Your task to perform on an android device: change text size in settings app Image 0: 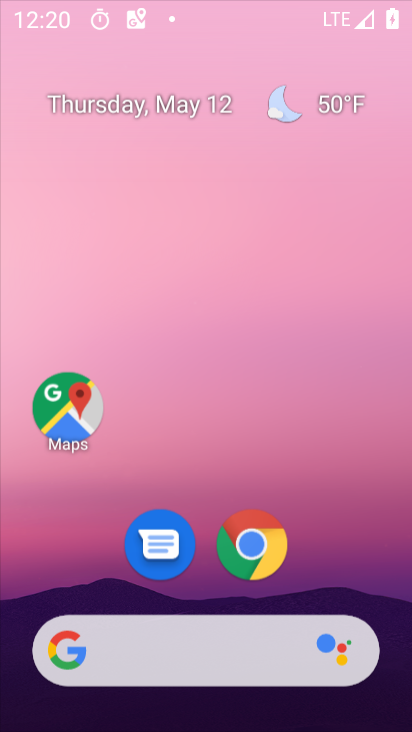
Step 0: click (270, 385)
Your task to perform on an android device: change text size in settings app Image 1: 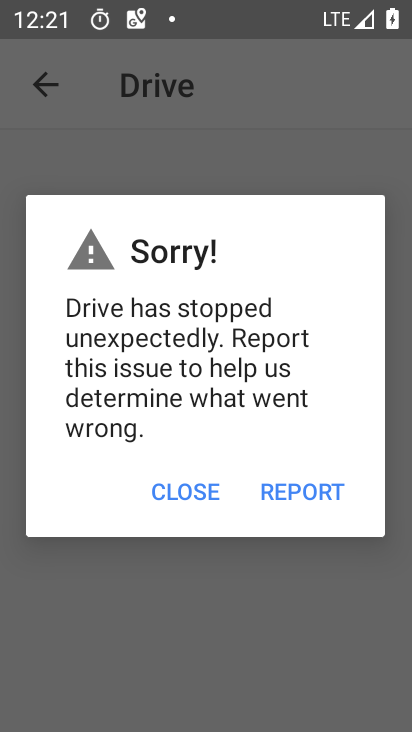
Step 1: click (189, 498)
Your task to perform on an android device: change text size in settings app Image 2: 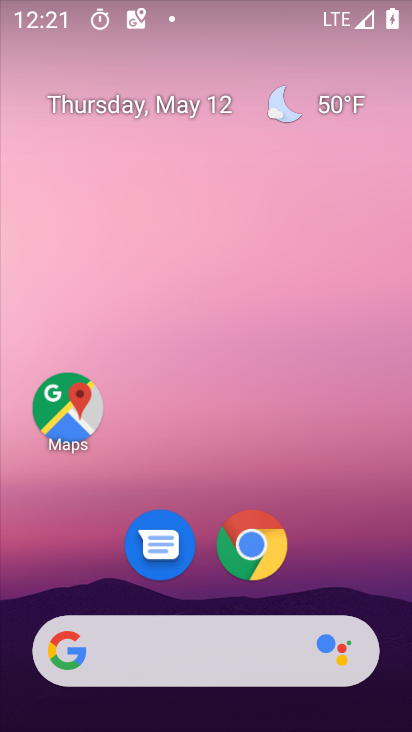
Step 2: drag from (222, 643) to (193, 3)
Your task to perform on an android device: change text size in settings app Image 3: 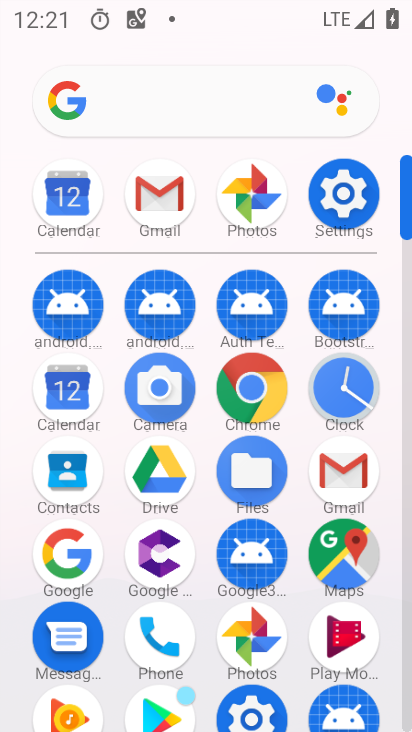
Step 3: click (344, 208)
Your task to perform on an android device: change text size in settings app Image 4: 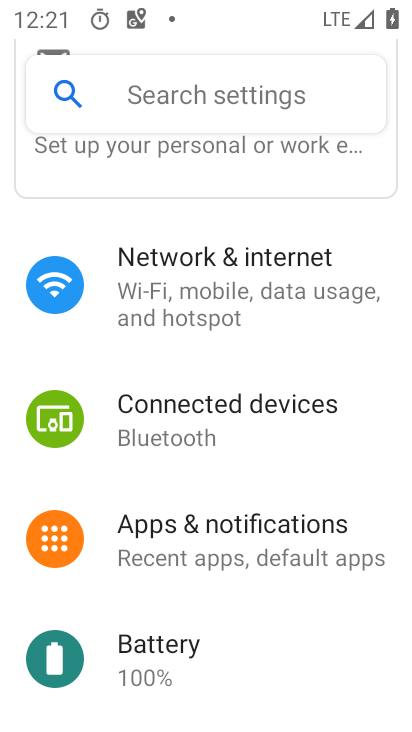
Step 4: drag from (187, 630) to (160, 157)
Your task to perform on an android device: change text size in settings app Image 5: 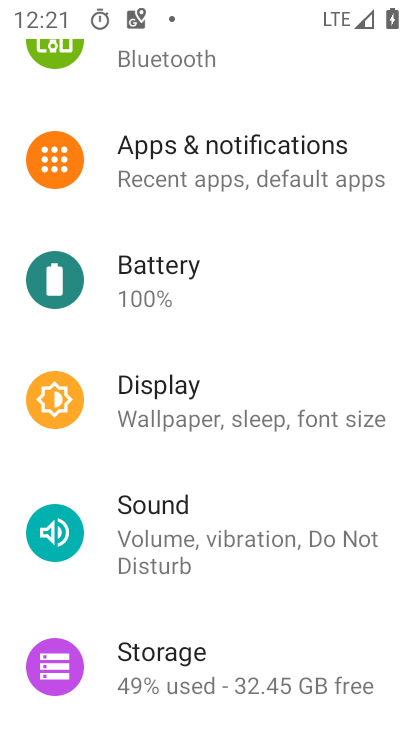
Step 5: click (190, 433)
Your task to perform on an android device: change text size in settings app Image 6: 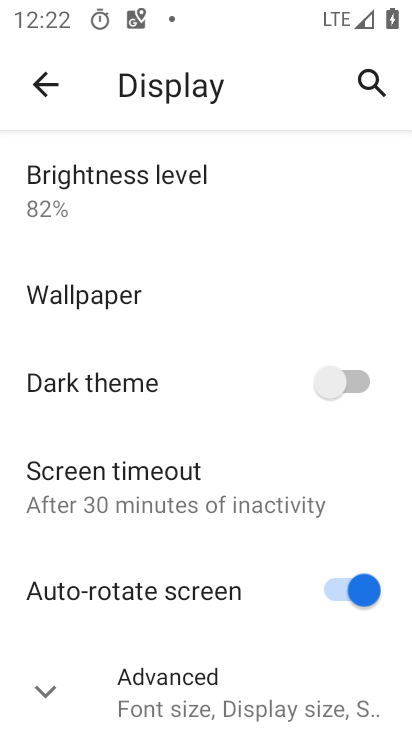
Step 6: click (175, 668)
Your task to perform on an android device: change text size in settings app Image 7: 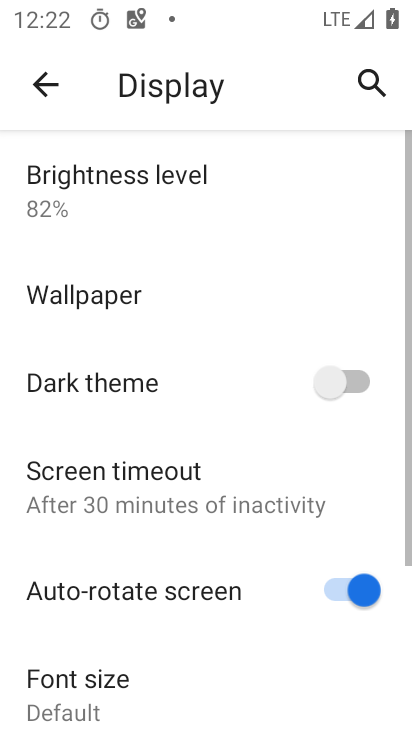
Step 7: drag from (182, 611) to (72, 18)
Your task to perform on an android device: change text size in settings app Image 8: 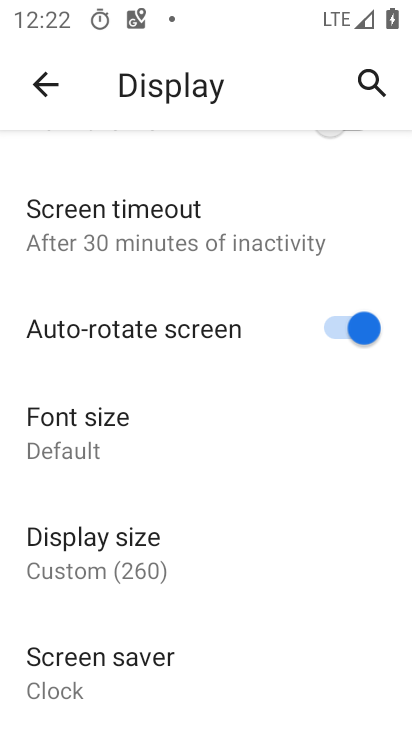
Step 8: click (101, 444)
Your task to perform on an android device: change text size in settings app Image 9: 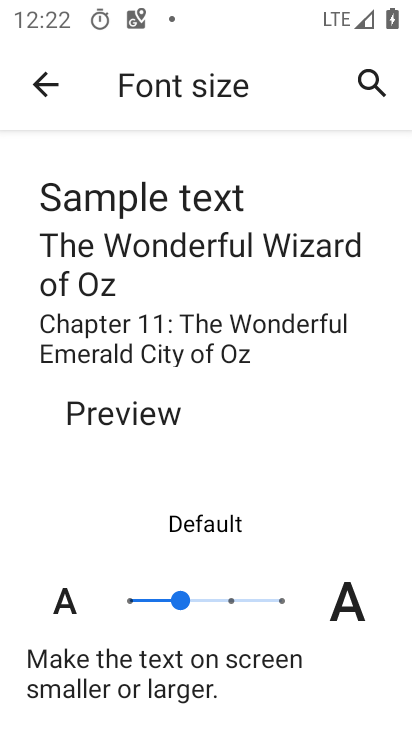
Step 9: click (226, 598)
Your task to perform on an android device: change text size in settings app Image 10: 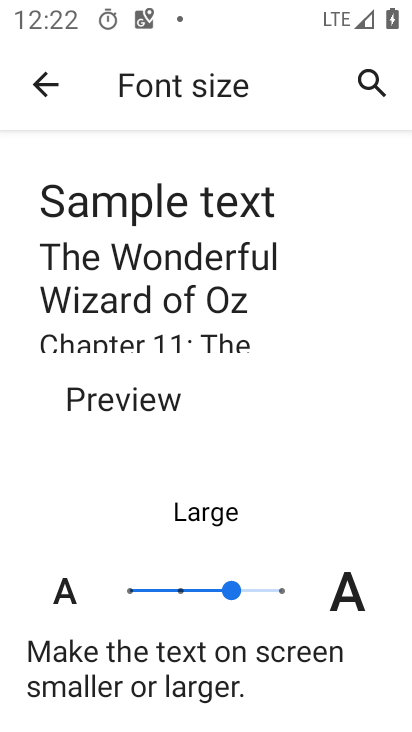
Step 10: task complete